Your task to perform on an android device: Open network settings Image 0: 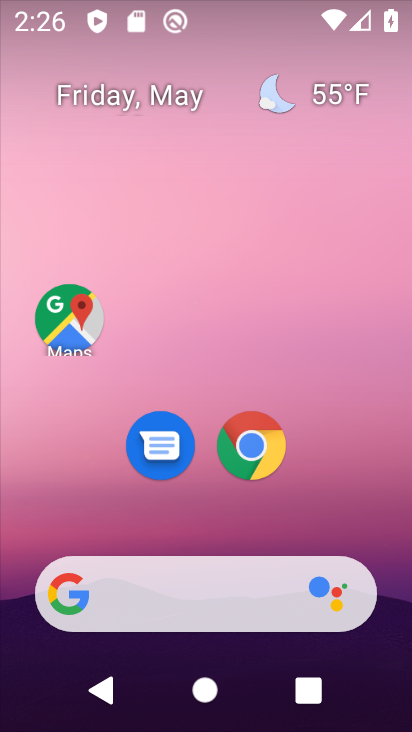
Step 0: drag from (380, 525) to (327, 69)
Your task to perform on an android device: Open network settings Image 1: 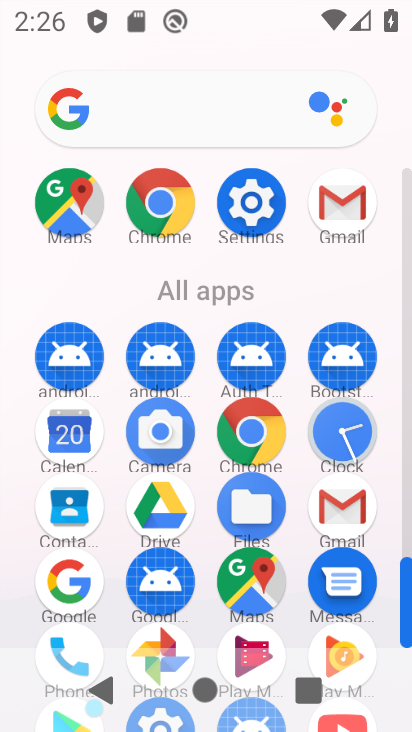
Step 1: click (243, 223)
Your task to perform on an android device: Open network settings Image 2: 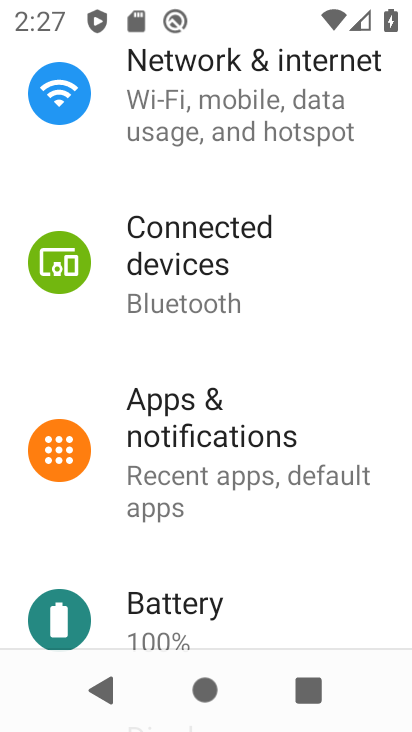
Step 2: click (310, 107)
Your task to perform on an android device: Open network settings Image 3: 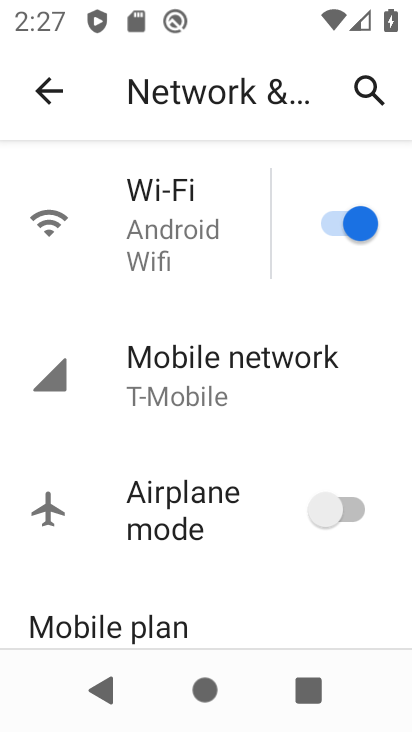
Step 3: task complete